Your task to perform on an android device: change the clock display to show seconds Image 0: 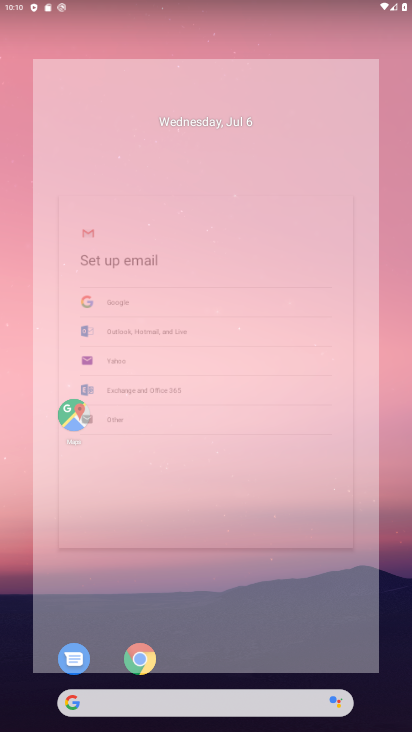
Step 0: press home button
Your task to perform on an android device: change the clock display to show seconds Image 1: 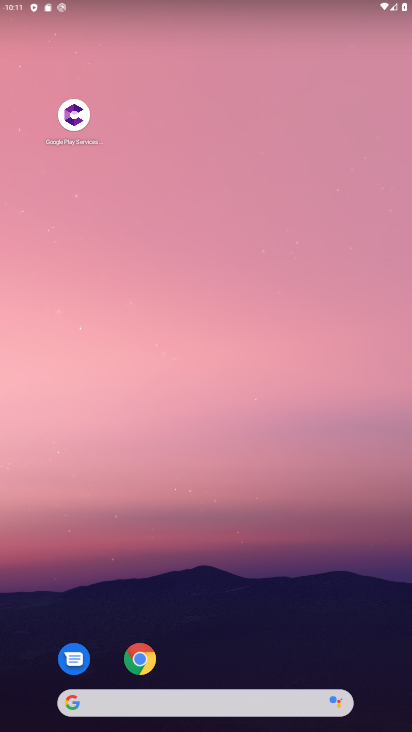
Step 1: drag from (203, 670) to (249, 104)
Your task to perform on an android device: change the clock display to show seconds Image 2: 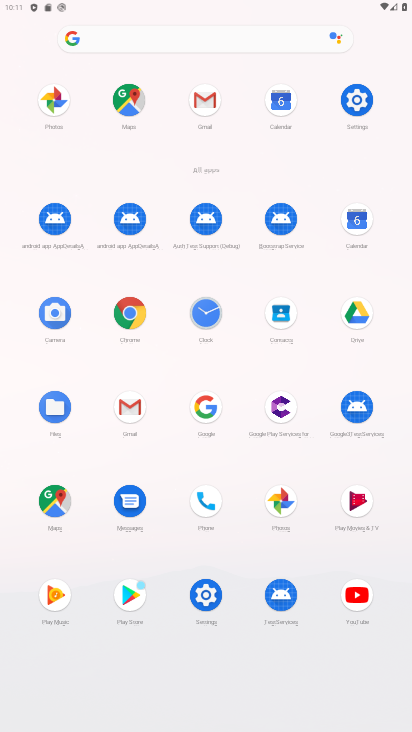
Step 2: click (202, 302)
Your task to perform on an android device: change the clock display to show seconds Image 3: 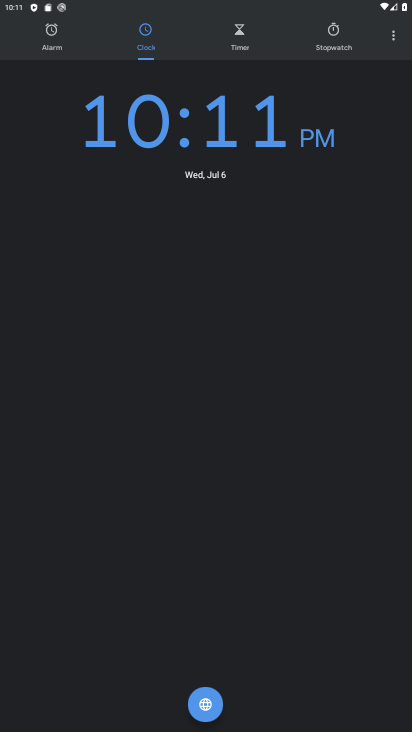
Step 3: click (388, 36)
Your task to perform on an android device: change the clock display to show seconds Image 4: 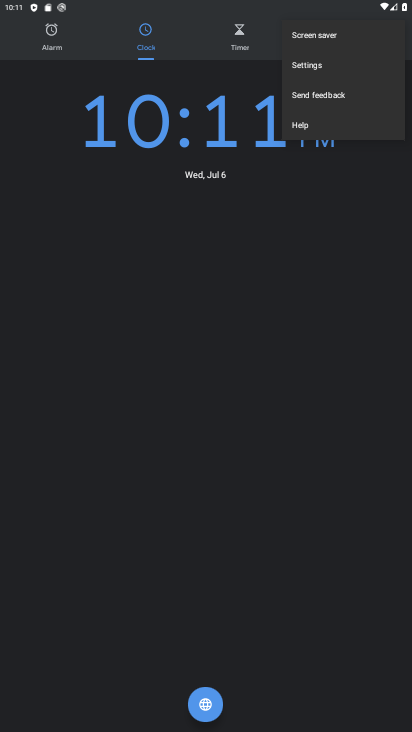
Step 4: click (335, 65)
Your task to perform on an android device: change the clock display to show seconds Image 5: 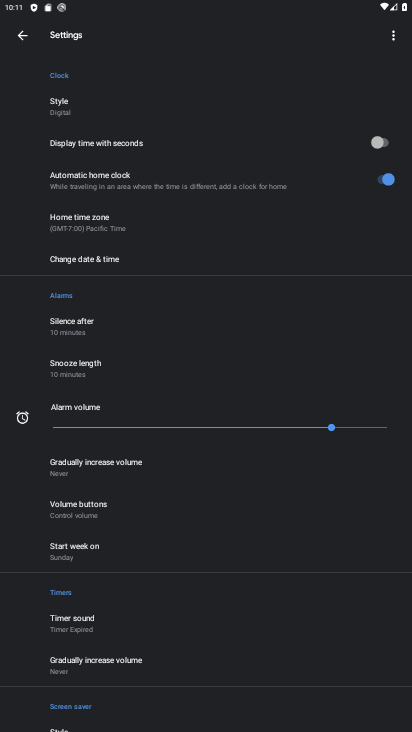
Step 5: click (162, 145)
Your task to perform on an android device: change the clock display to show seconds Image 6: 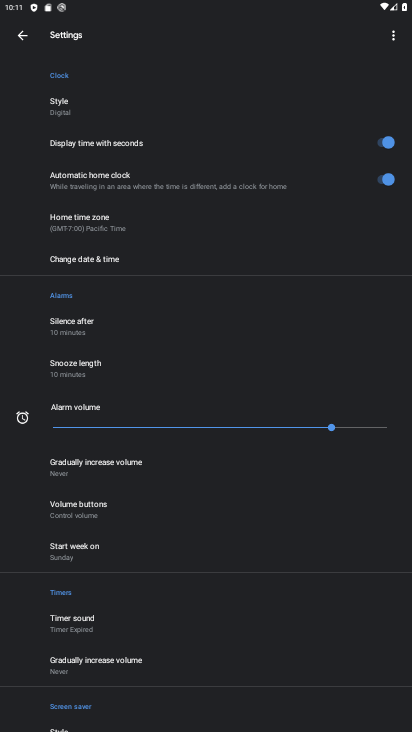
Step 6: task complete